Your task to perform on an android device: install app "TextNow: Call + Text Unlimited" Image 0: 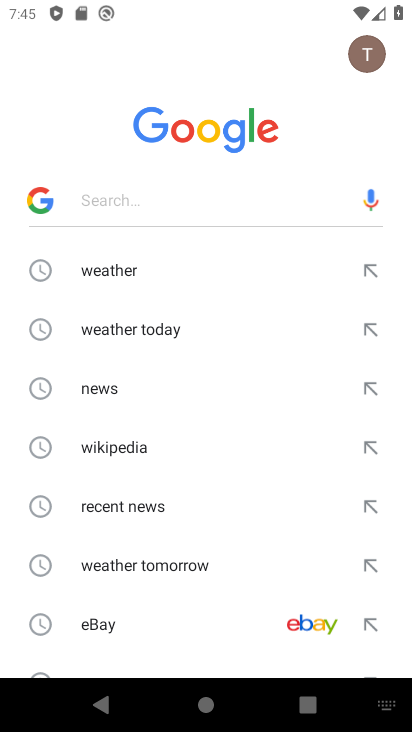
Step 0: press home button
Your task to perform on an android device: install app "TextNow: Call + Text Unlimited" Image 1: 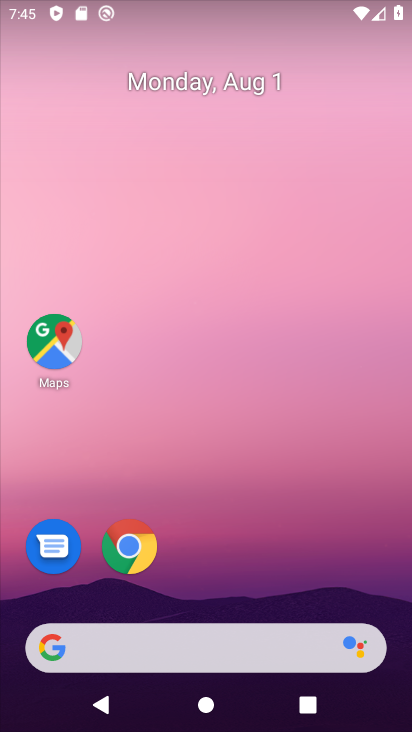
Step 1: drag from (241, 557) to (301, 30)
Your task to perform on an android device: install app "TextNow: Call + Text Unlimited" Image 2: 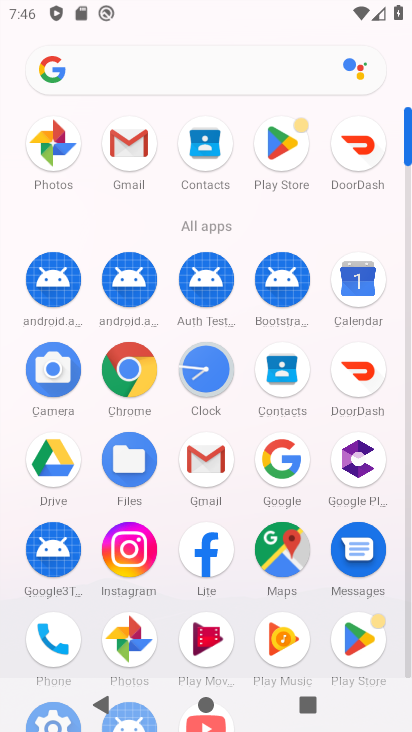
Step 2: click (281, 143)
Your task to perform on an android device: install app "TextNow: Call + Text Unlimited" Image 3: 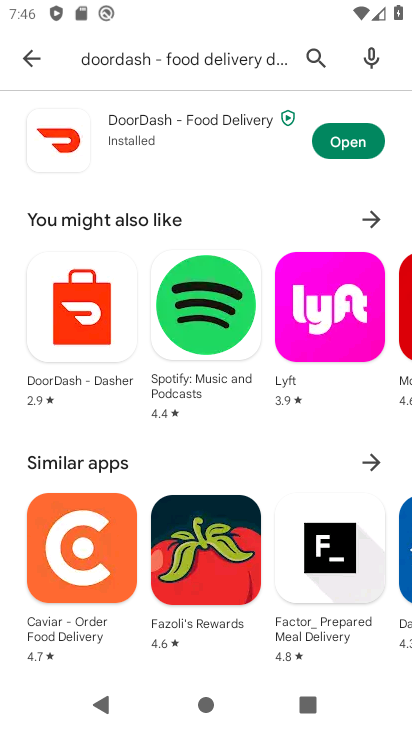
Step 3: click (281, 57)
Your task to perform on an android device: install app "TextNow: Call + Text Unlimited" Image 4: 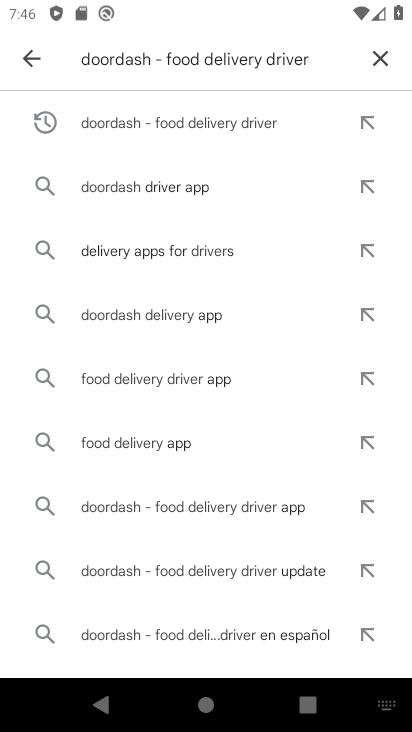
Step 4: click (383, 53)
Your task to perform on an android device: install app "TextNow: Call + Text Unlimited" Image 5: 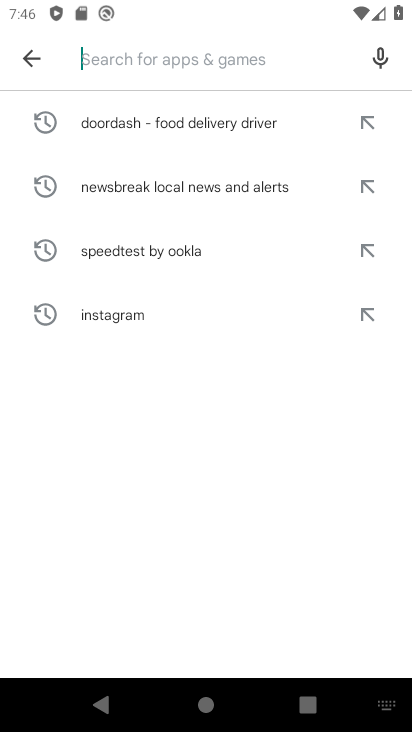
Step 5: type "textnow: call "
Your task to perform on an android device: install app "TextNow: Call + Text Unlimited" Image 6: 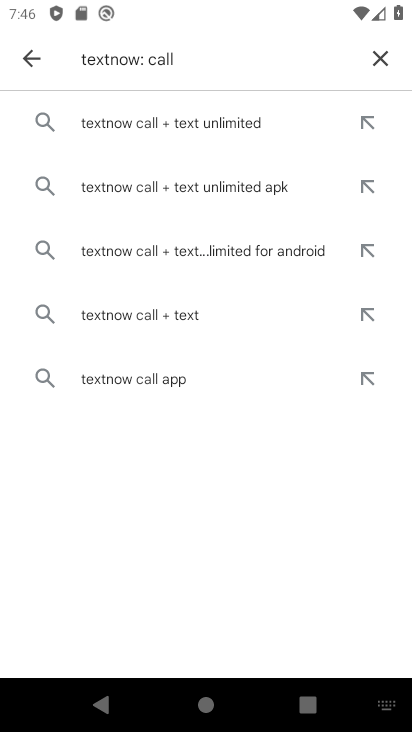
Step 6: click (236, 125)
Your task to perform on an android device: install app "TextNow: Call + Text Unlimited" Image 7: 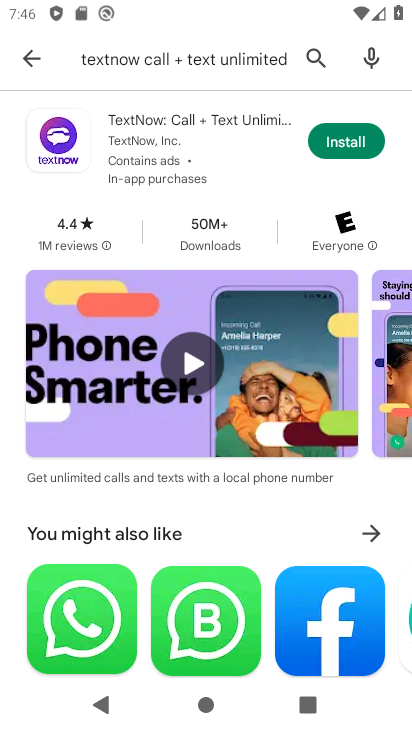
Step 7: click (355, 138)
Your task to perform on an android device: install app "TextNow: Call + Text Unlimited" Image 8: 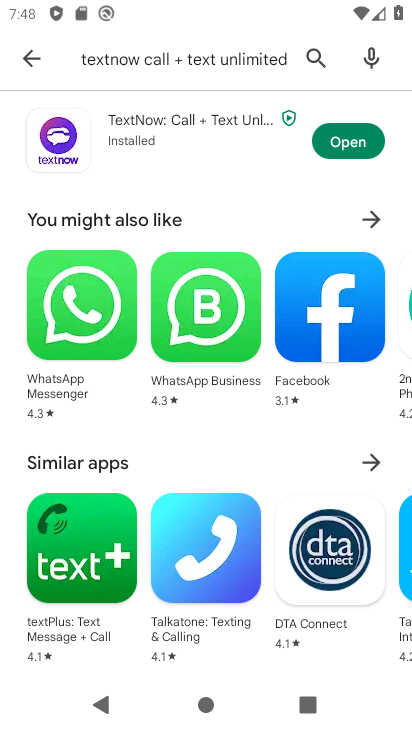
Step 8: task complete